Your task to perform on an android device: set the stopwatch Image 0: 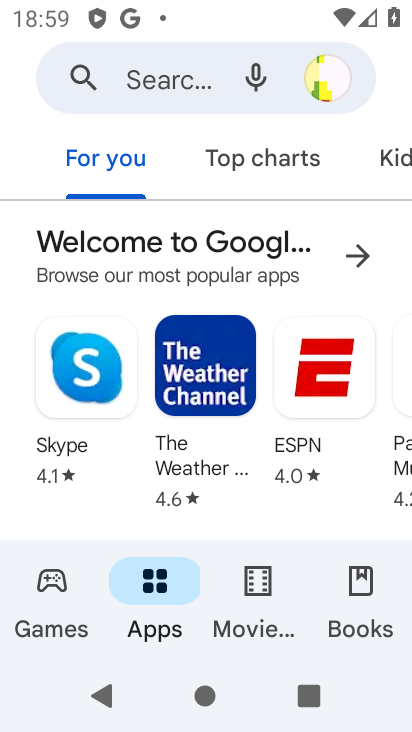
Step 0: press home button
Your task to perform on an android device: set the stopwatch Image 1: 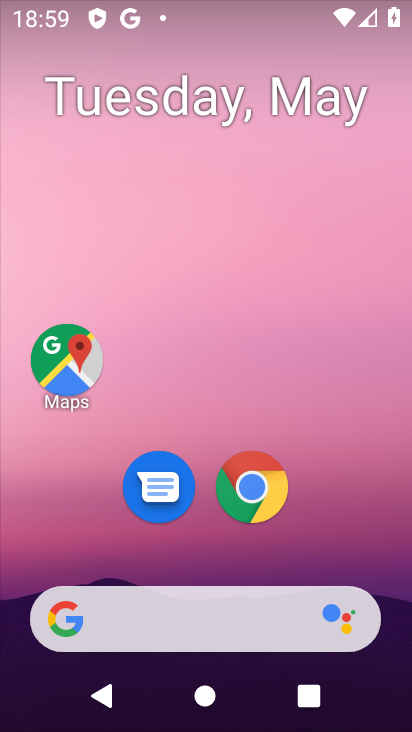
Step 1: drag from (350, 491) to (264, 73)
Your task to perform on an android device: set the stopwatch Image 2: 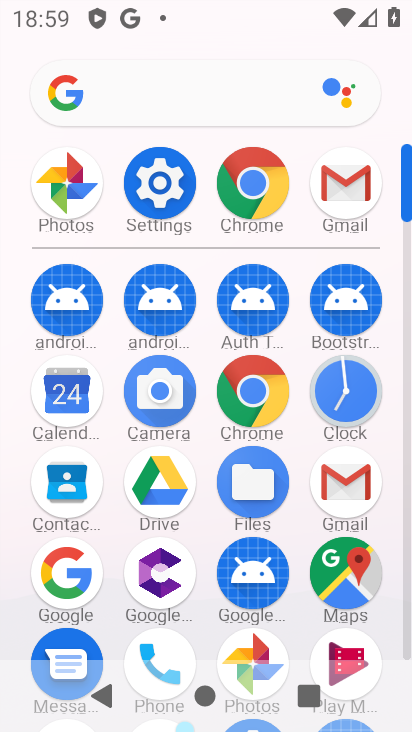
Step 2: click (337, 406)
Your task to perform on an android device: set the stopwatch Image 3: 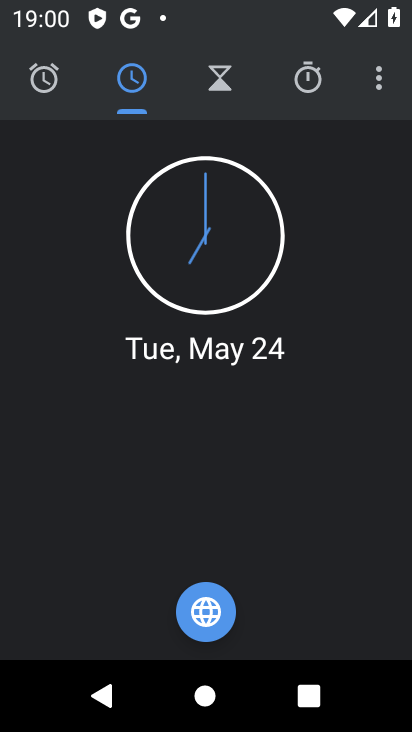
Step 3: click (315, 81)
Your task to perform on an android device: set the stopwatch Image 4: 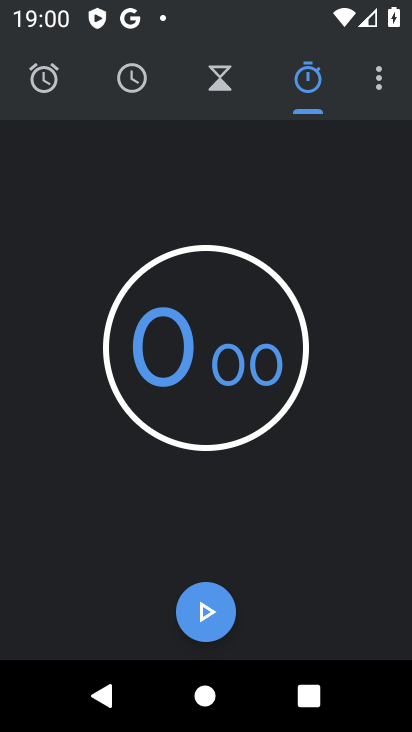
Step 4: task complete